Your task to perform on an android device: turn on data saver in the chrome app Image 0: 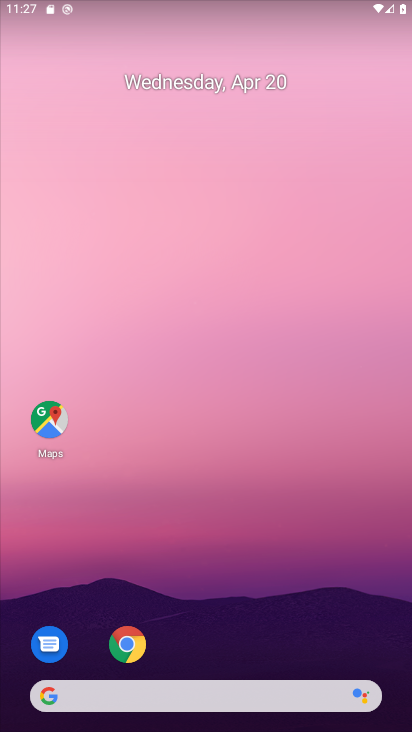
Step 0: drag from (163, 614) to (291, 140)
Your task to perform on an android device: turn on data saver in the chrome app Image 1: 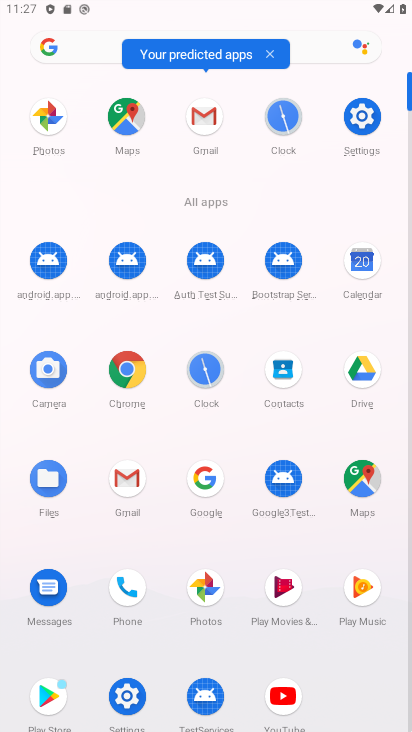
Step 1: click (129, 372)
Your task to perform on an android device: turn on data saver in the chrome app Image 2: 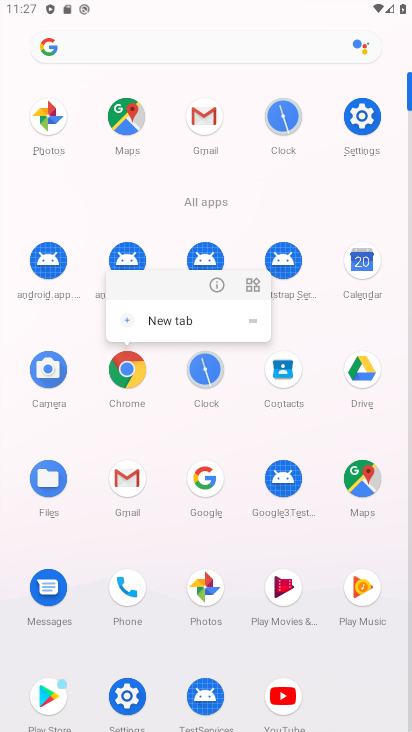
Step 2: click (132, 375)
Your task to perform on an android device: turn on data saver in the chrome app Image 3: 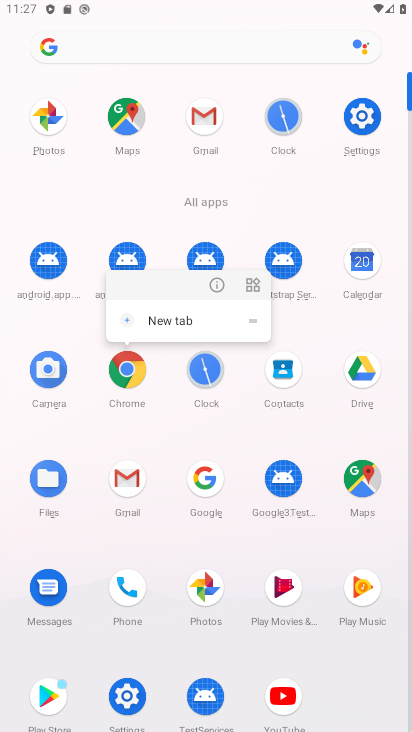
Step 3: click (210, 287)
Your task to perform on an android device: turn on data saver in the chrome app Image 4: 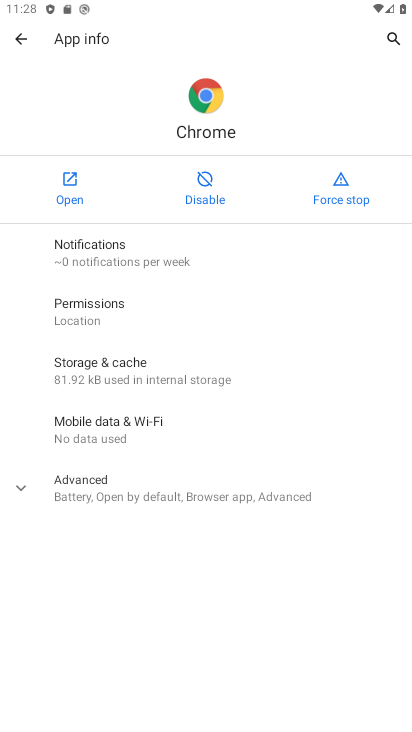
Step 4: click (76, 193)
Your task to perform on an android device: turn on data saver in the chrome app Image 5: 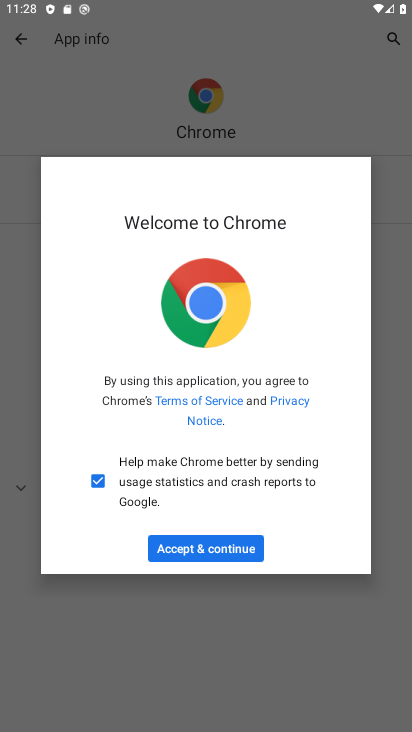
Step 5: click (199, 542)
Your task to perform on an android device: turn on data saver in the chrome app Image 6: 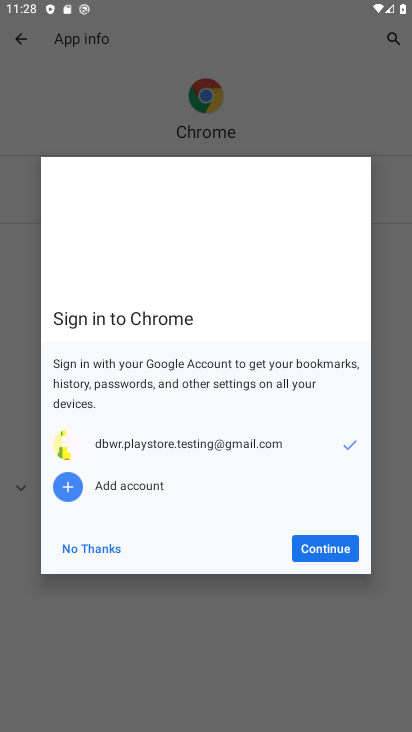
Step 6: click (325, 549)
Your task to perform on an android device: turn on data saver in the chrome app Image 7: 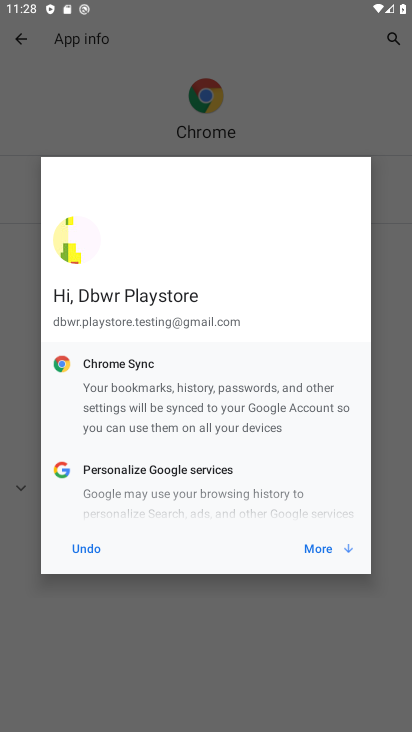
Step 7: click (326, 551)
Your task to perform on an android device: turn on data saver in the chrome app Image 8: 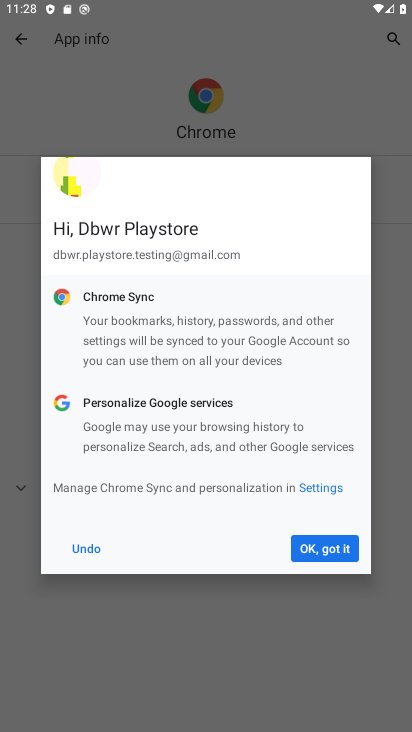
Step 8: click (329, 551)
Your task to perform on an android device: turn on data saver in the chrome app Image 9: 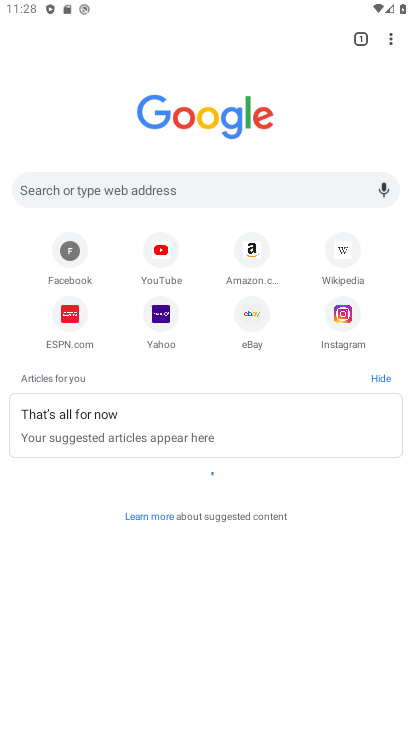
Step 9: click (387, 41)
Your task to perform on an android device: turn on data saver in the chrome app Image 10: 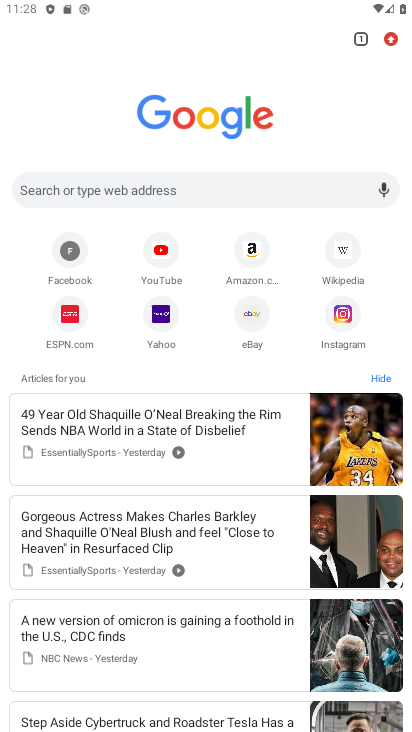
Step 10: click (387, 41)
Your task to perform on an android device: turn on data saver in the chrome app Image 11: 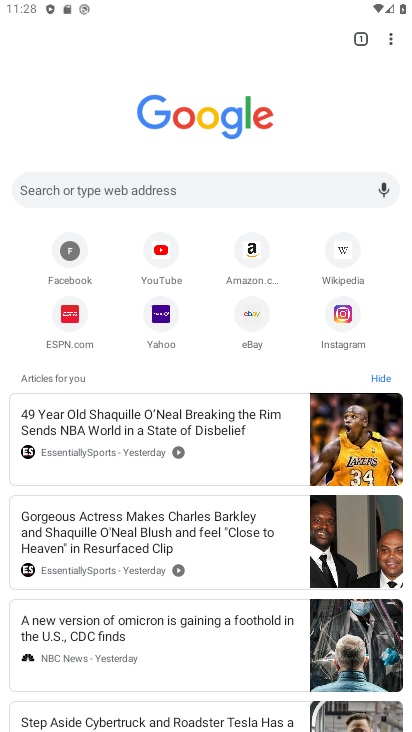
Step 11: click (387, 41)
Your task to perform on an android device: turn on data saver in the chrome app Image 12: 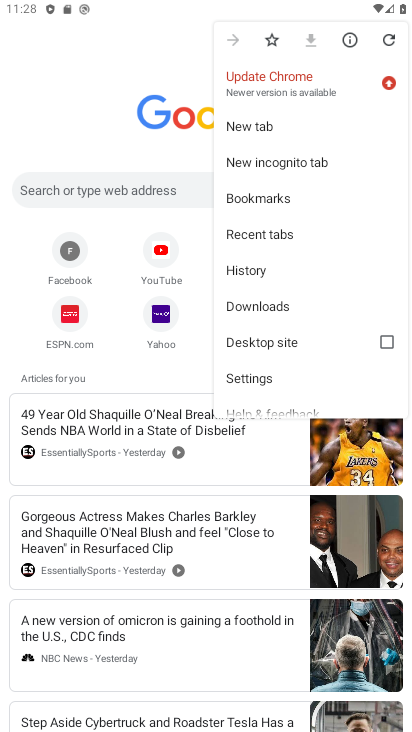
Step 12: click (272, 382)
Your task to perform on an android device: turn on data saver in the chrome app Image 13: 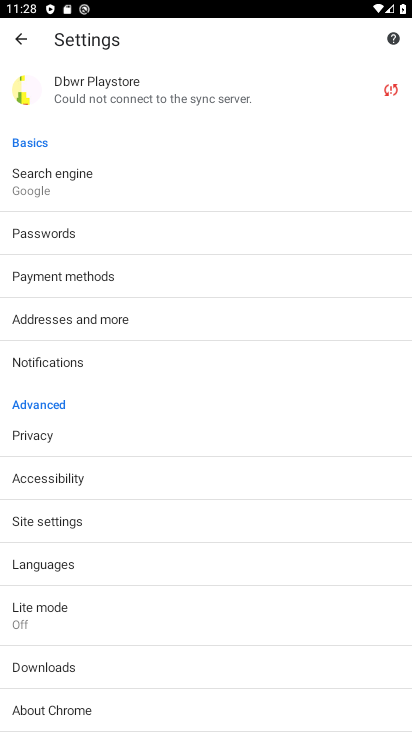
Step 13: click (93, 621)
Your task to perform on an android device: turn on data saver in the chrome app Image 14: 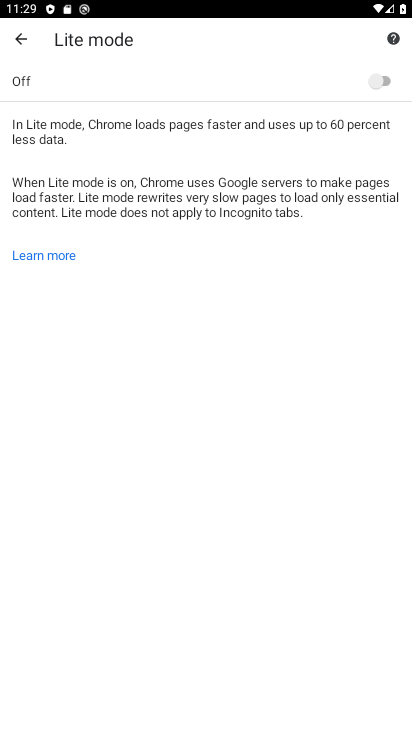
Step 14: click (385, 77)
Your task to perform on an android device: turn on data saver in the chrome app Image 15: 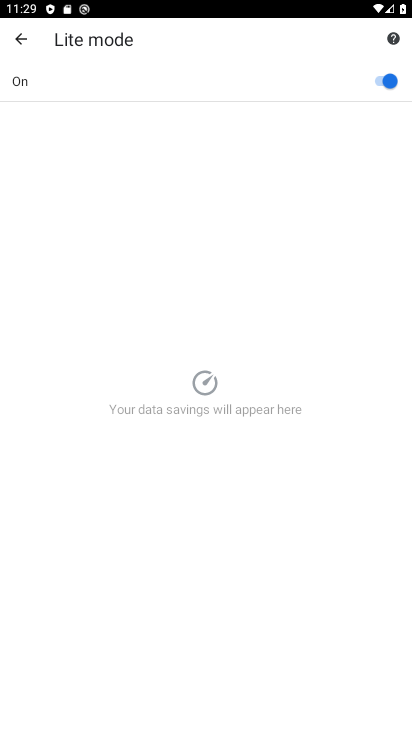
Step 15: task complete